Your task to perform on an android device: Open location settings Image 0: 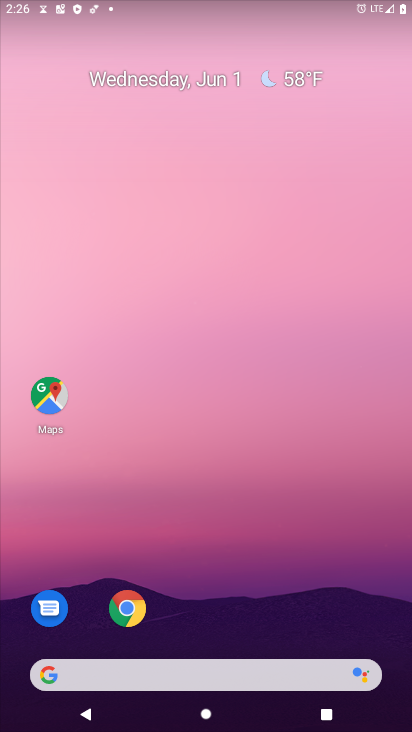
Step 0: drag from (333, 588) to (316, 91)
Your task to perform on an android device: Open location settings Image 1: 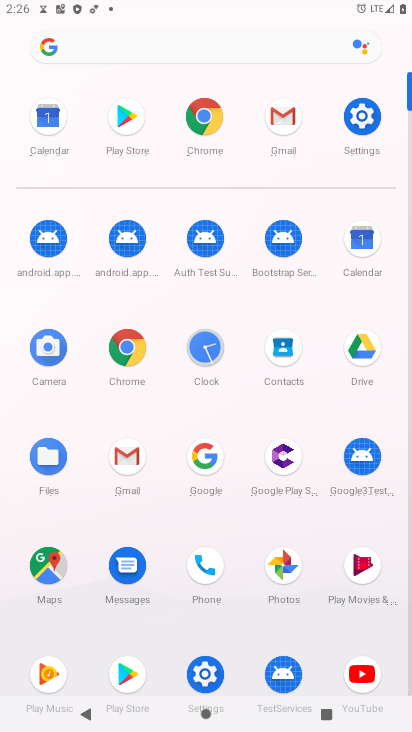
Step 1: click (360, 102)
Your task to perform on an android device: Open location settings Image 2: 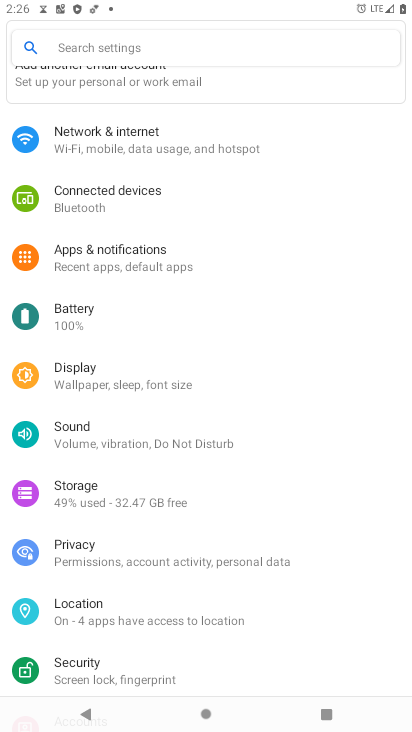
Step 2: click (79, 613)
Your task to perform on an android device: Open location settings Image 3: 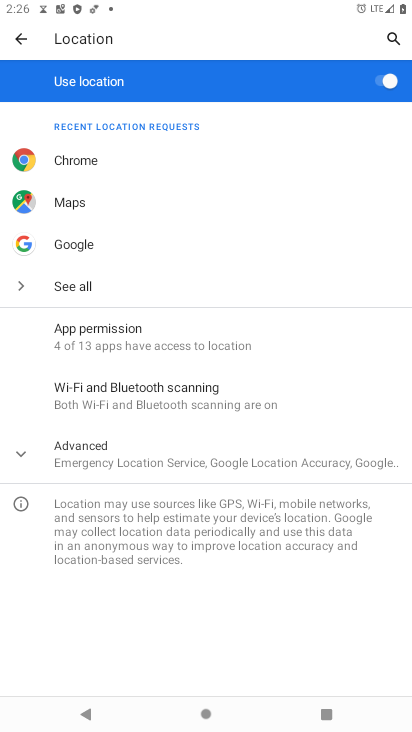
Step 3: task complete